Your task to perform on an android device: Do I have any events this weekend? Image 0: 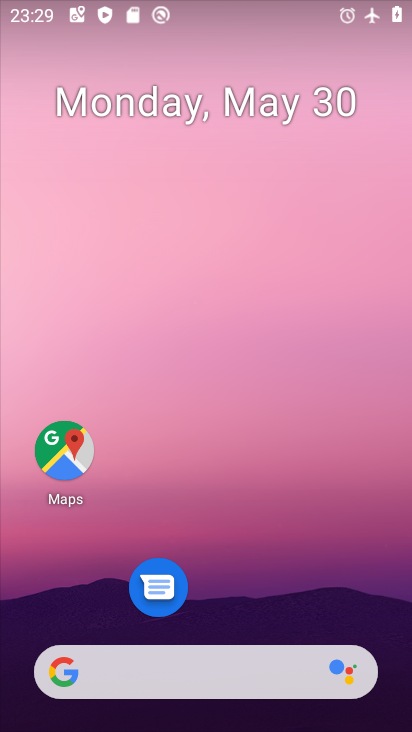
Step 0: drag from (220, 630) to (169, 85)
Your task to perform on an android device: Do I have any events this weekend? Image 1: 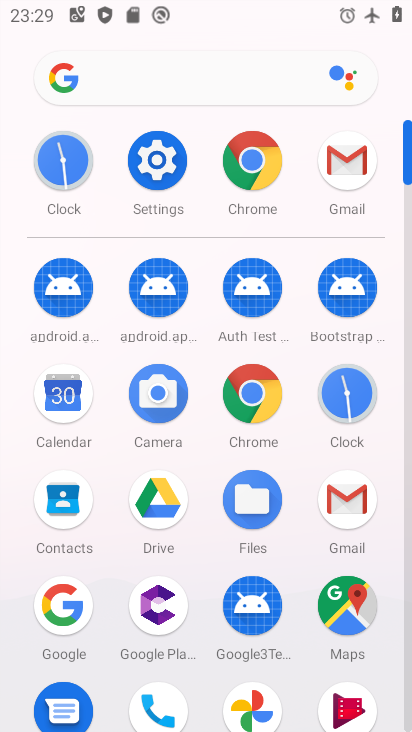
Step 1: click (76, 407)
Your task to perform on an android device: Do I have any events this weekend? Image 2: 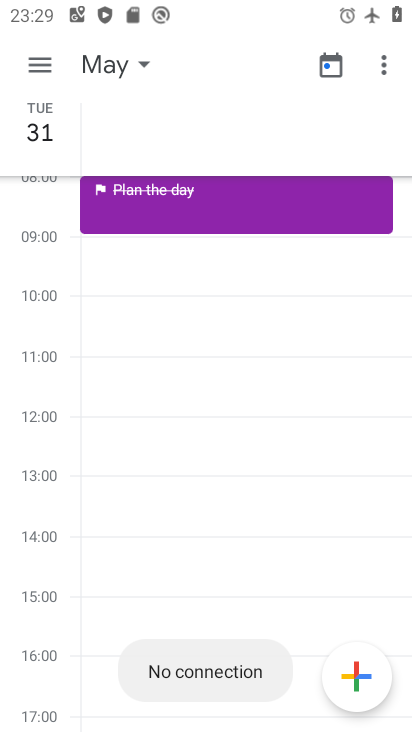
Step 2: click (37, 74)
Your task to perform on an android device: Do I have any events this weekend? Image 3: 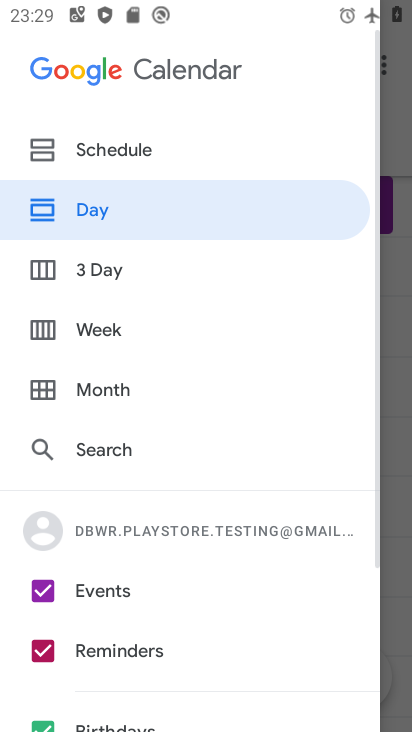
Step 3: click (118, 319)
Your task to perform on an android device: Do I have any events this weekend? Image 4: 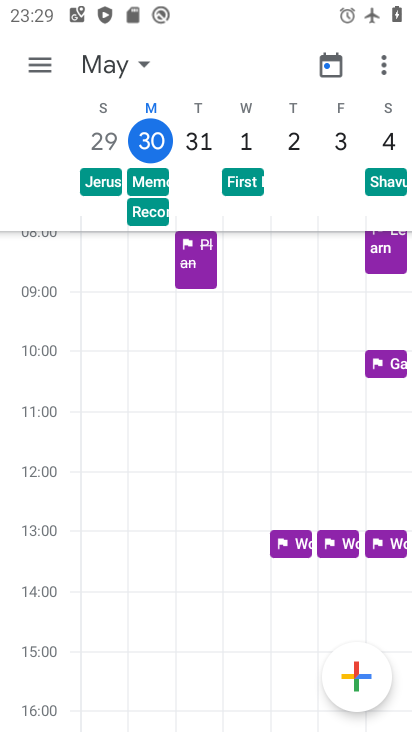
Step 4: task complete